Your task to perform on an android device: show emergency info Image 0: 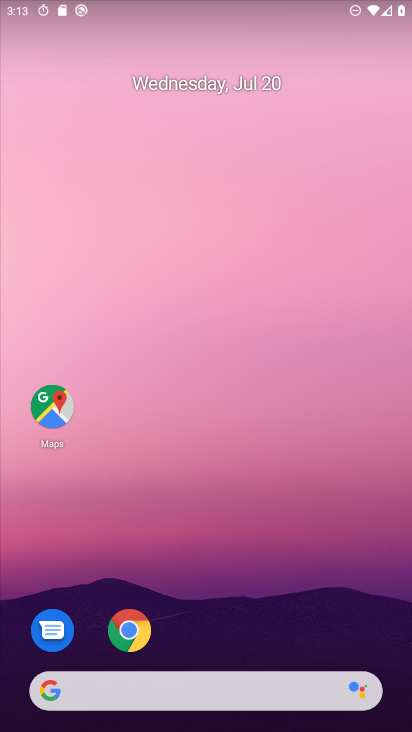
Step 0: drag from (211, 683) to (167, 73)
Your task to perform on an android device: show emergency info Image 1: 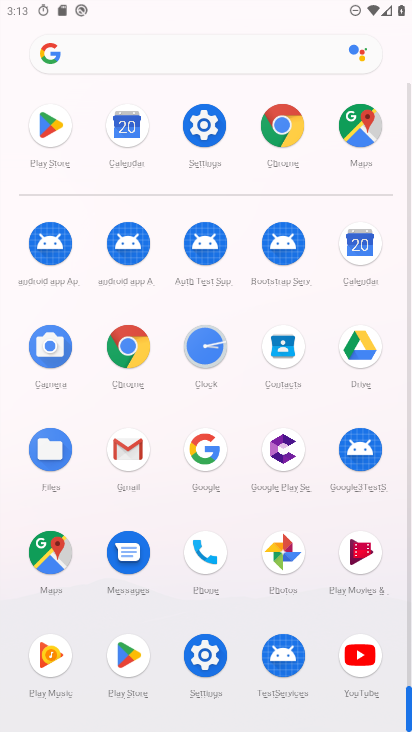
Step 1: drag from (274, 614) to (235, 90)
Your task to perform on an android device: show emergency info Image 2: 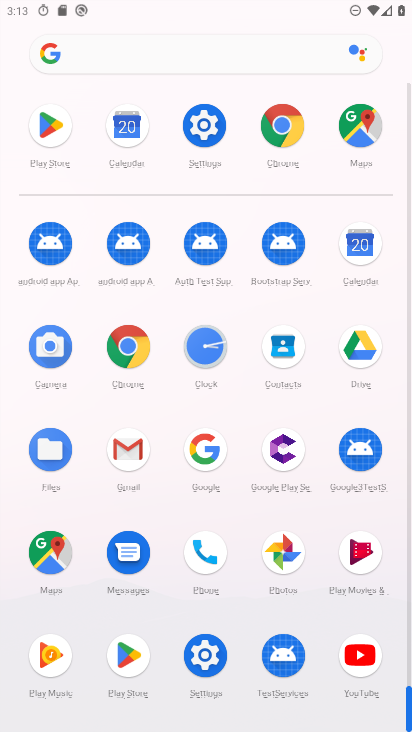
Step 2: click (204, 130)
Your task to perform on an android device: show emergency info Image 3: 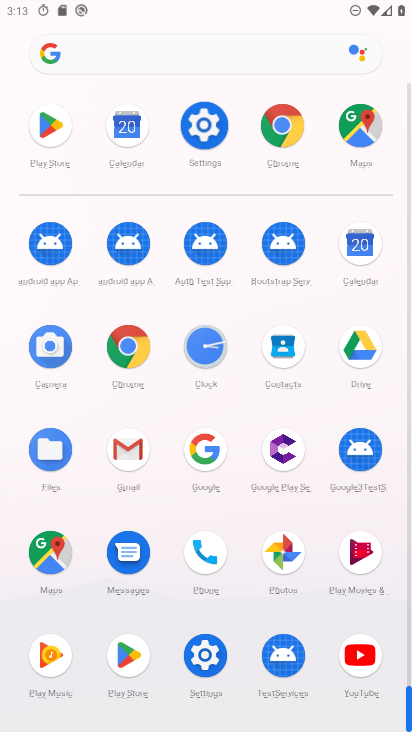
Step 3: click (204, 128)
Your task to perform on an android device: show emergency info Image 4: 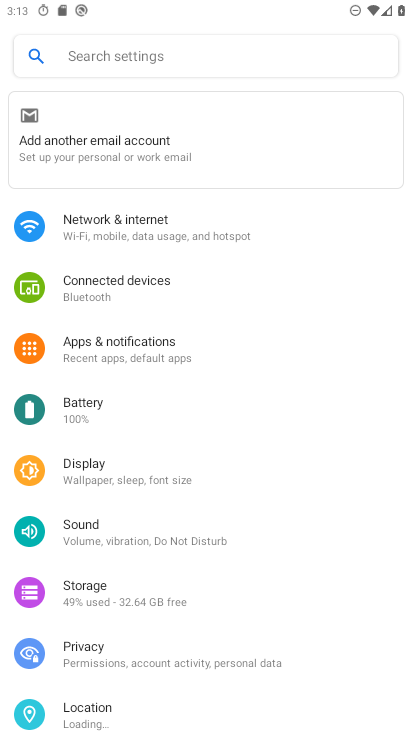
Step 4: drag from (151, 484) to (149, 199)
Your task to perform on an android device: show emergency info Image 5: 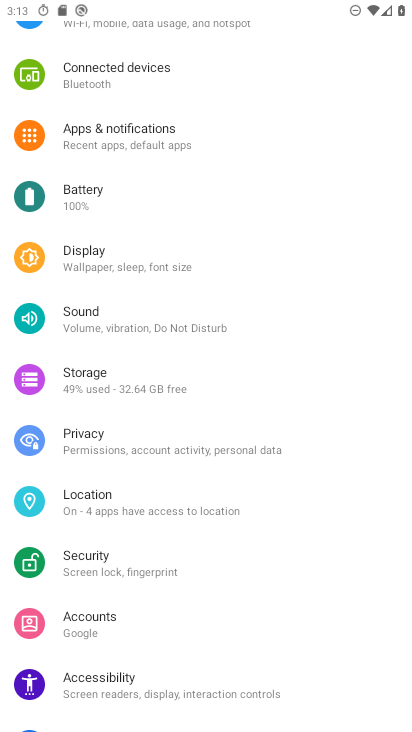
Step 5: drag from (141, 504) to (116, 257)
Your task to perform on an android device: show emergency info Image 6: 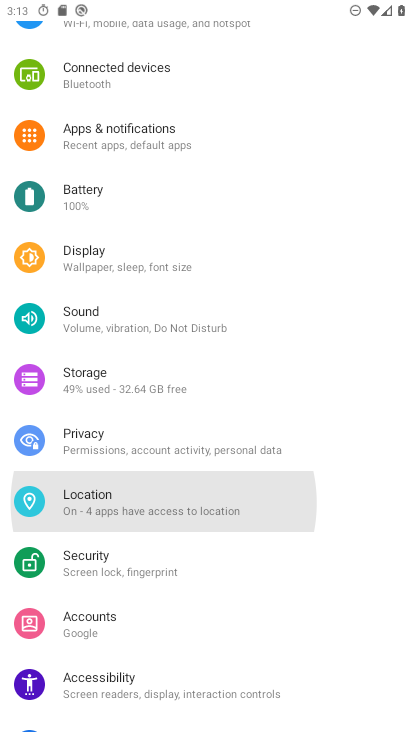
Step 6: drag from (39, 590) to (38, 336)
Your task to perform on an android device: show emergency info Image 7: 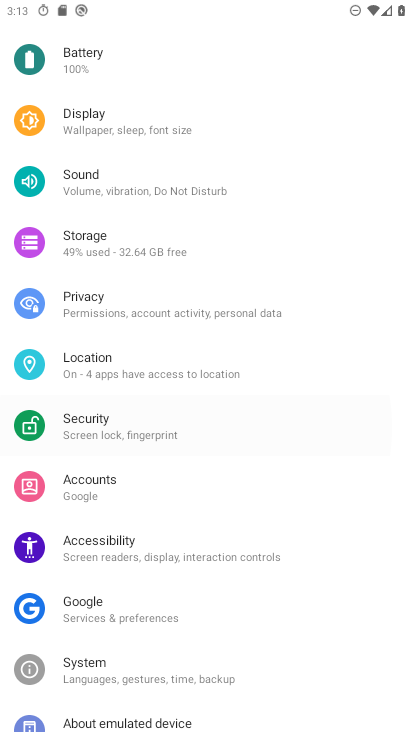
Step 7: drag from (96, 566) to (179, 201)
Your task to perform on an android device: show emergency info Image 8: 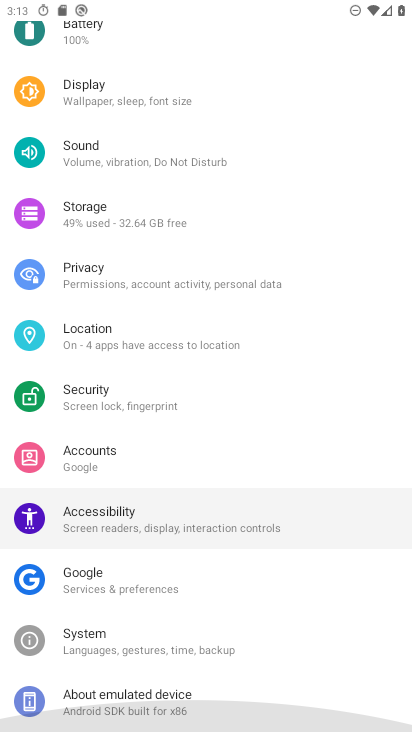
Step 8: drag from (259, 567) to (254, 311)
Your task to perform on an android device: show emergency info Image 9: 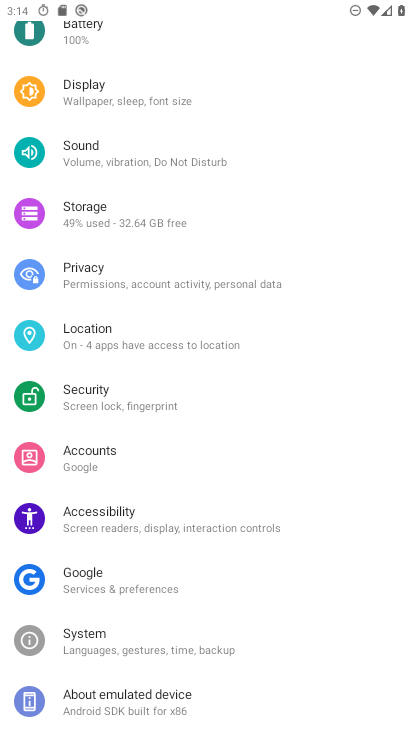
Step 9: drag from (223, 591) to (224, 218)
Your task to perform on an android device: show emergency info Image 10: 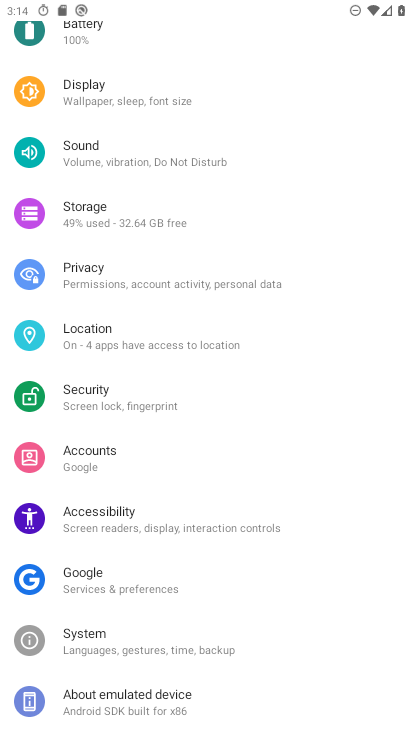
Step 10: click (148, 705)
Your task to perform on an android device: show emergency info Image 11: 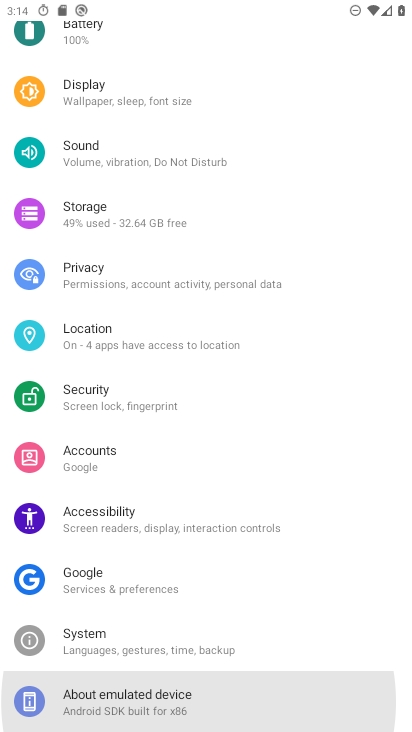
Step 11: click (150, 702)
Your task to perform on an android device: show emergency info Image 12: 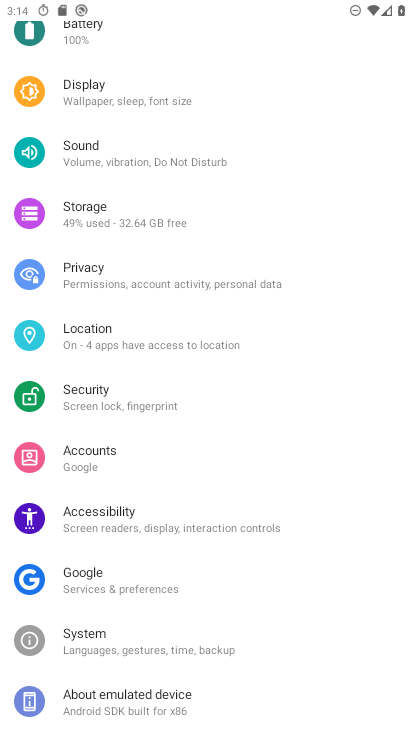
Step 12: click (161, 703)
Your task to perform on an android device: show emergency info Image 13: 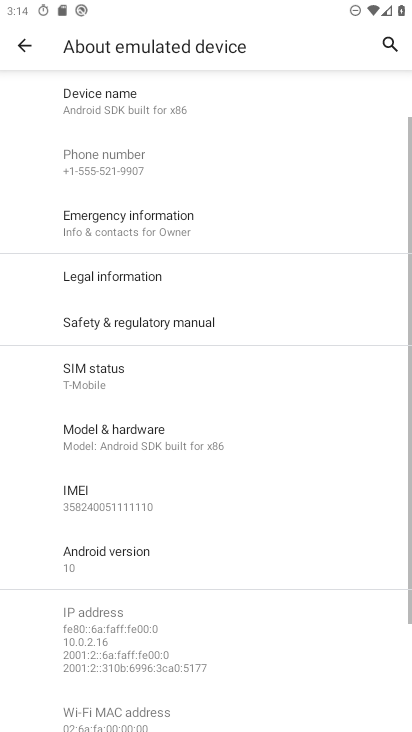
Step 13: click (132, 220)
Your task to perform on an android device: show emergency info Image 14: 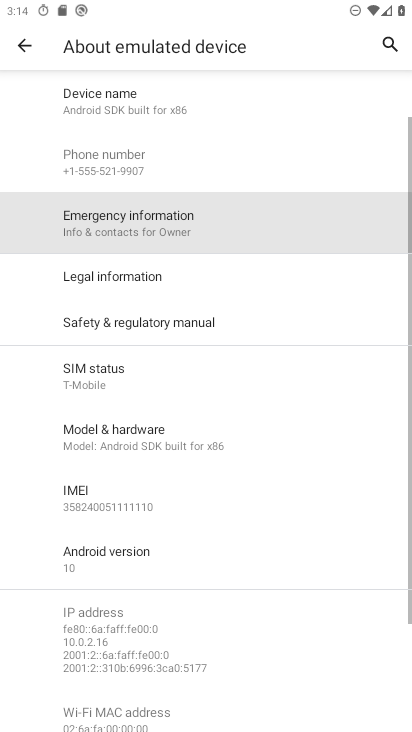
Step 14: click (132, 220)
Your task to perform on an android device: show emergency info Image 15: 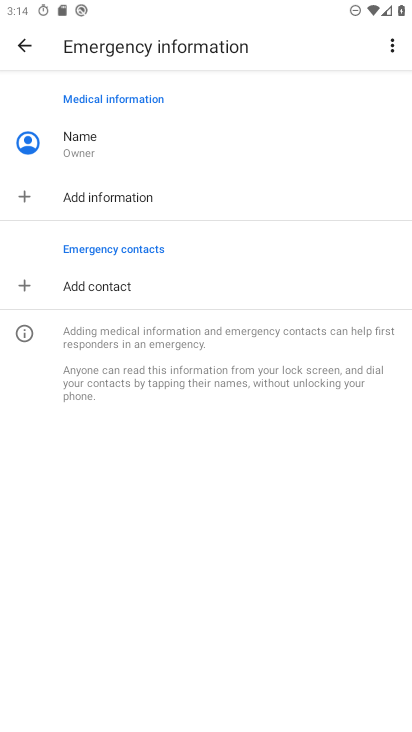
Step 15: task complete